Your task to perform on an android device: remove spam from my inbox in the gmail app Image 0: 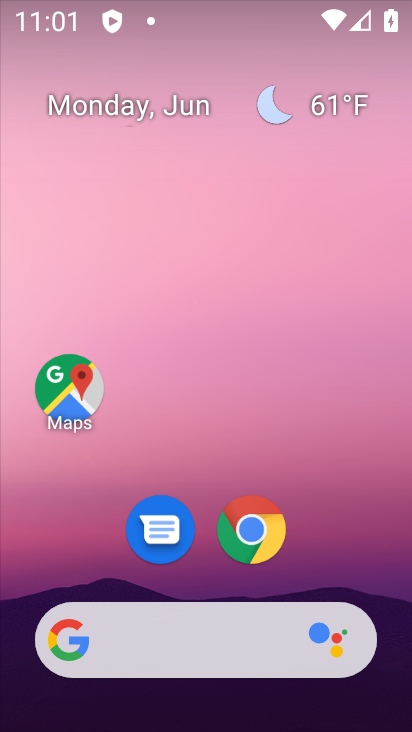
Step 0: drag from (63, 628) to (196, 36)
Your task to perform on an android device: remove spam from my inbox in the gmail app Image 1: 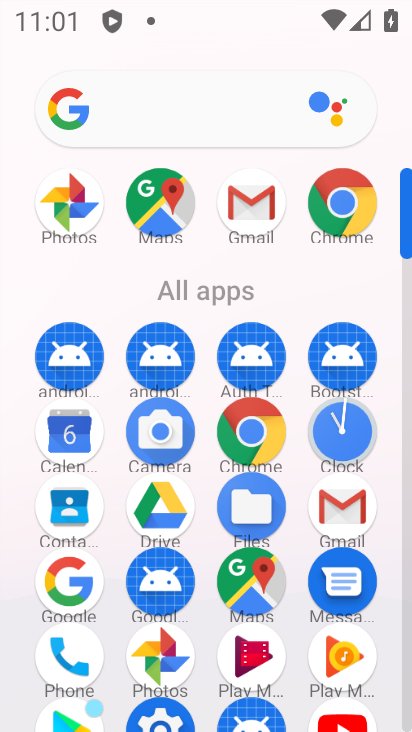
Step 1: click (342, 518)
Your task to perform on an android device: remove spam from my inbox in the gmail app Image 2: 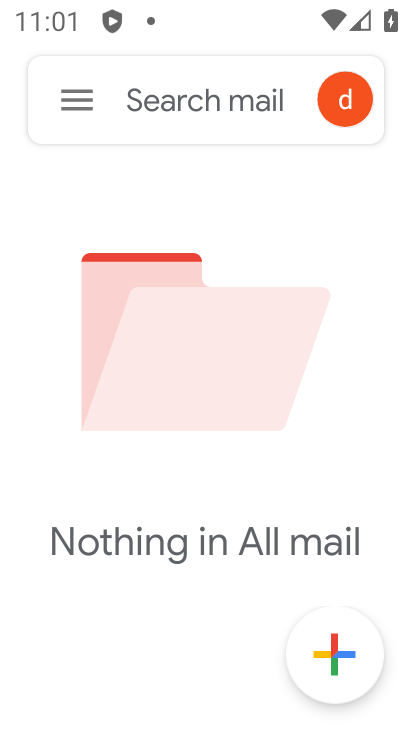
Step 2: click (84, 116)
Your task to perform on an android device: remove spam from my inbox in the gmail app Image 3: 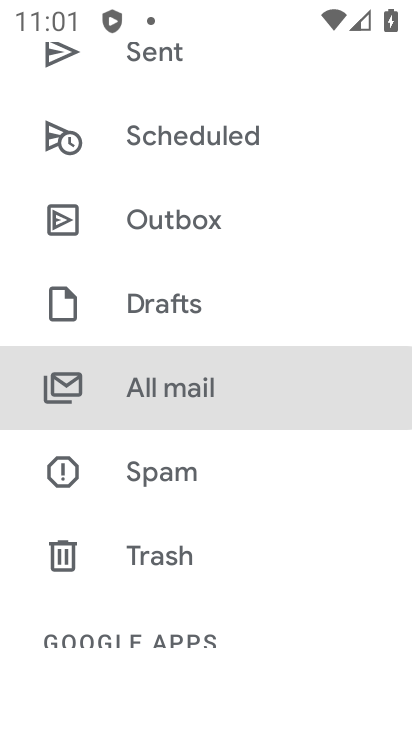
Step 3: click (215, 469)
Your task to perform on an android device: remove spam from my inbox in the gmail app Image 4: 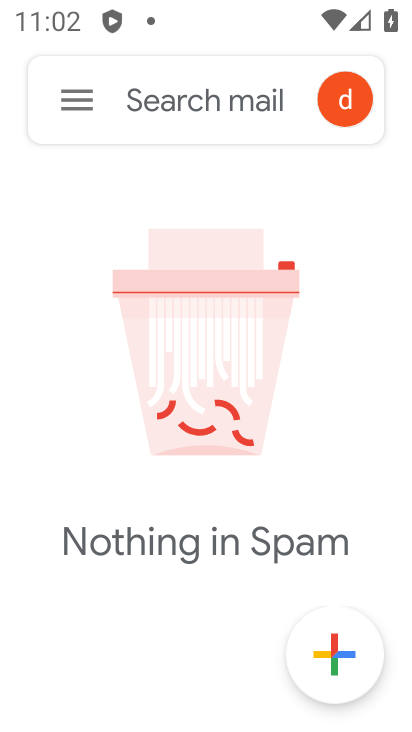
Step 4: task complete